Your task to perform on an android device: change keyboard looks Image 0: 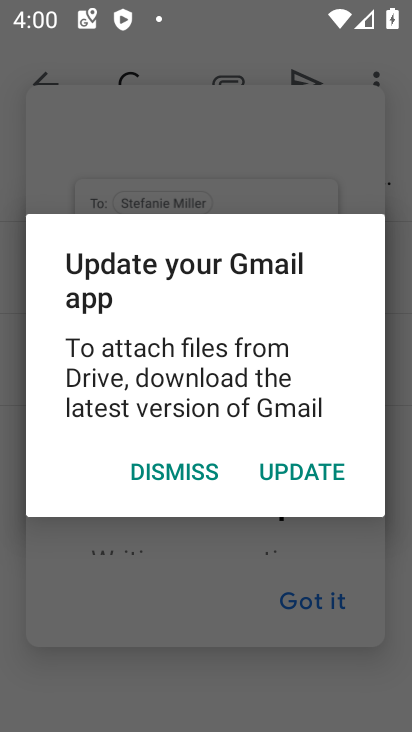
Step 0: press home button
Your task to perform on an android device: change keyboard looks Image 1: 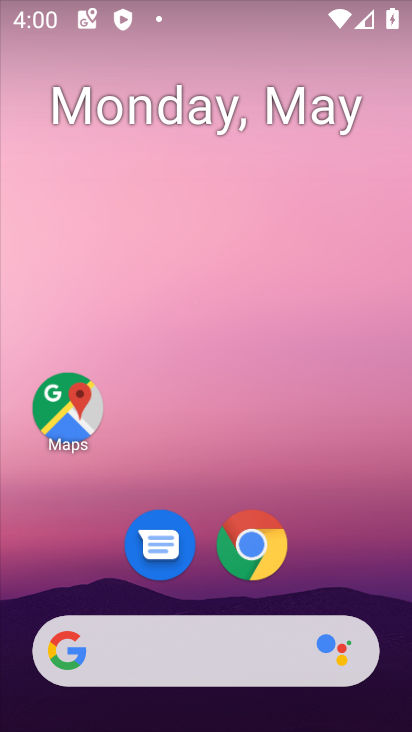
Step 1: drag from (196, 571) to (217, 3)
Your task to perform on an android device: change keyboard looks Image 2: 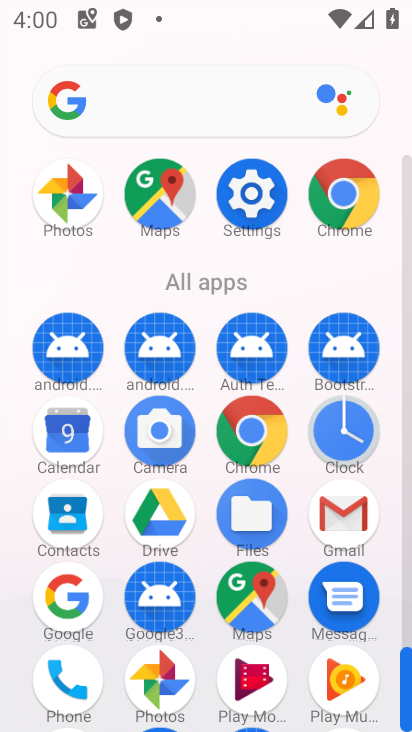
Step 2: click (256, 202)
Your task to perform on an android device: change keyboard looks Image 3: 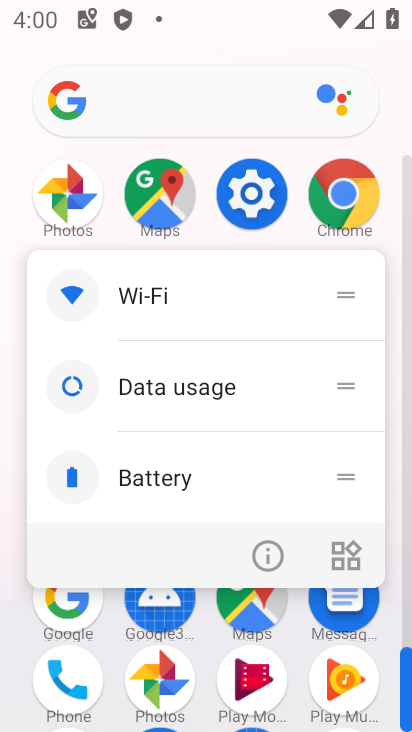
Step 3: click (249, 193)
Your task to perform on an android device: change keyboard looks Image 4: 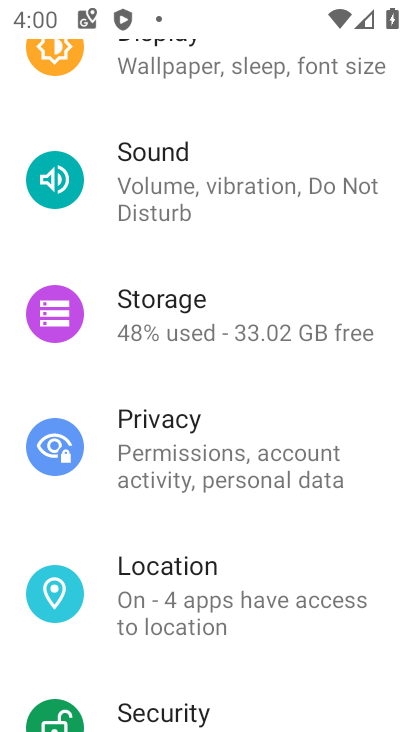
Step 4: drag from (230, 590) to (262, 26)
Your task to perform on an android device: change keyboard looks Image 5: 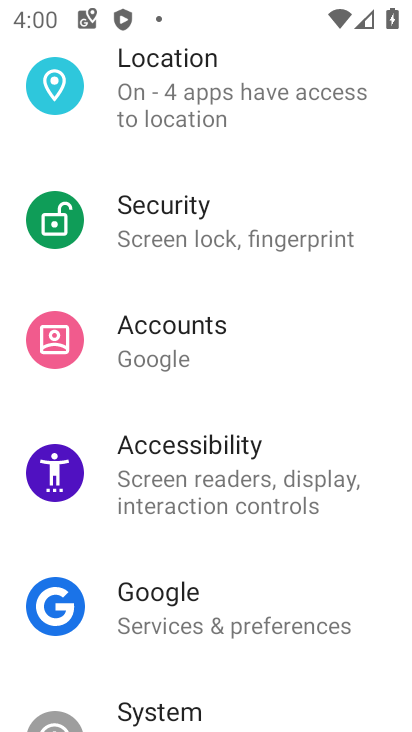
Step 5: click (163, 704)
Your task to perform on an android device: change keyboard looks Image 6: 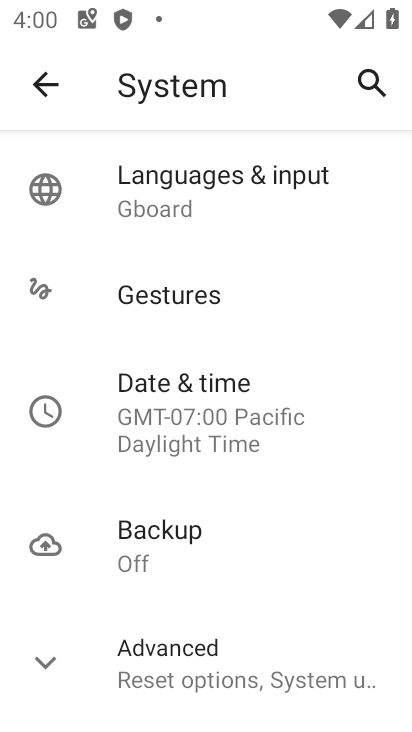
Step 6: click (186, 199)
Your task to perform on an android device: change keyboard looks Image 7: 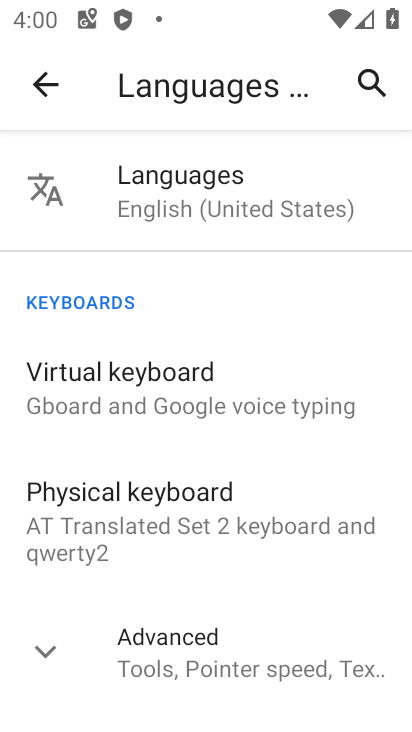
Step 7: click (131, 395)
Your task to perform on an android device: change keyboard looks Image 8: 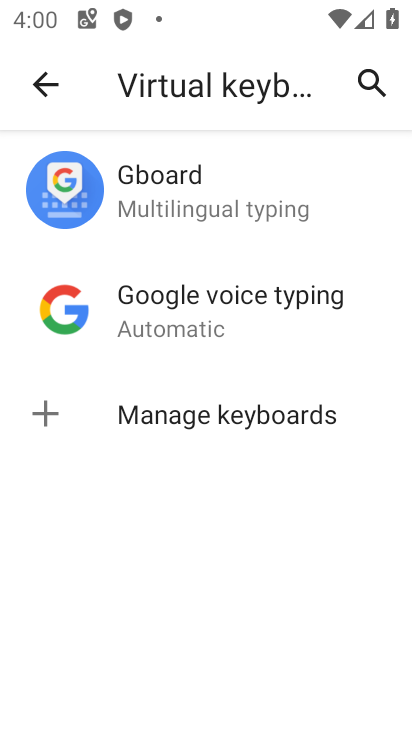
Step 8: click (170, 190)
Your task to perform on an android device: change keyboard looks Image 9: 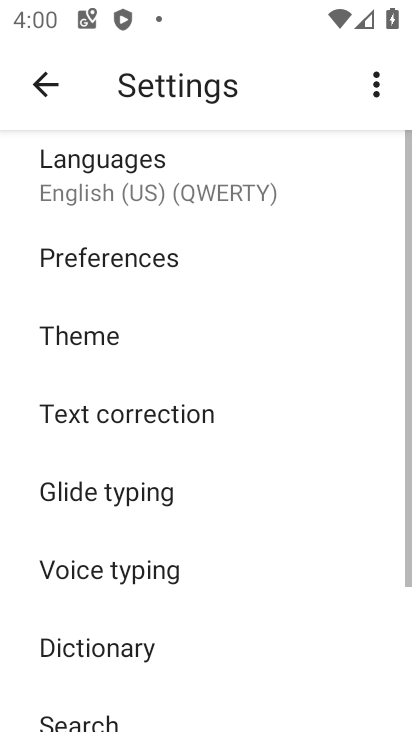
Step 9: click (128, 333)
Your task to perform on an android device: change keyboard looks Image 10: 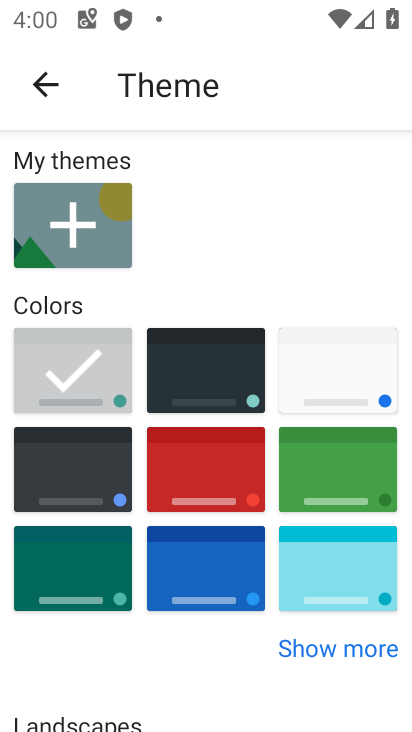
Step 10: click (206, 366)
Your task to perform on an android device: change keyboard looks Image 11: 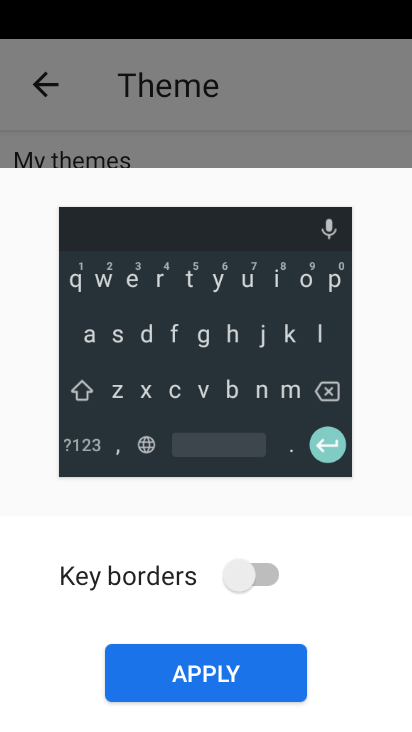
Step 11: click (206, 659)
Your task to perform on an android device: change keyboard looks Image 12: 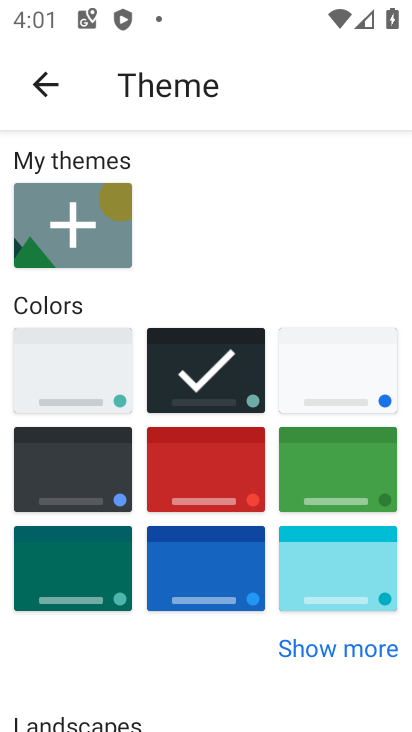
Step 12: task complete